Your task to perform on an android device: find which apps use the phone's location Image 0: 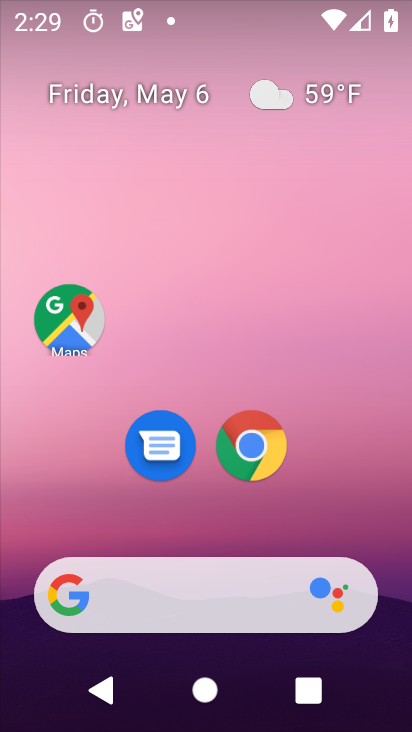
Step 0: drag from (373, 508) to (227, 131)
Your task to perform on an android device: find which apps use the phone's location Image 1: 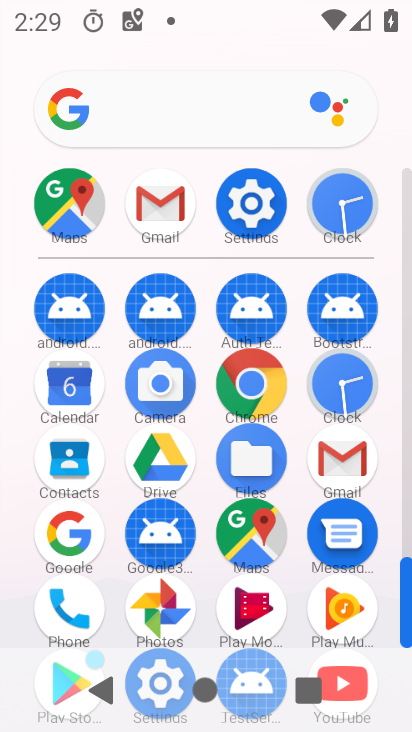
Step 1: click (69, 598)
Your task to perform on an android device: find which apps use the phone's location Image 2: 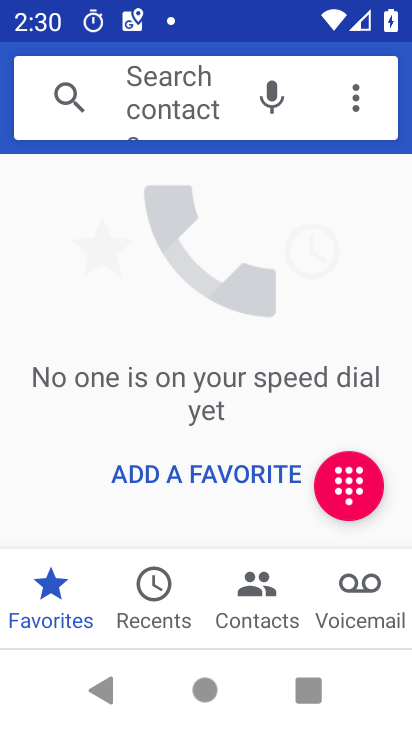
Step 2: press home button
Your task to perform on an android device: find which apps use the phone's location Image 3: 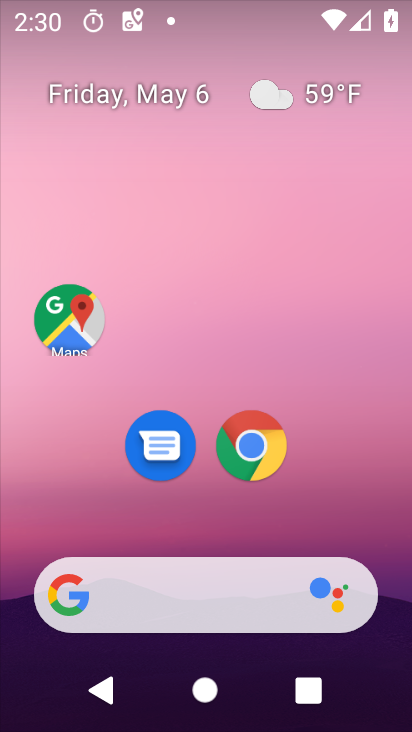
Step 3: drag from (367, 556) to (167, 87)
Your task to perform on an android device: find which apps use the phone's location Image 4: 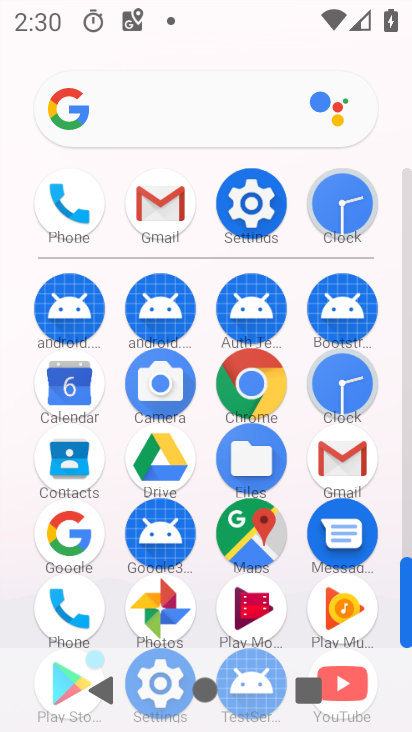
Step 4: drag from (288, 529) to (209, 182)
Your task to perform on an android device: find which apps use the phone's location Image 5: 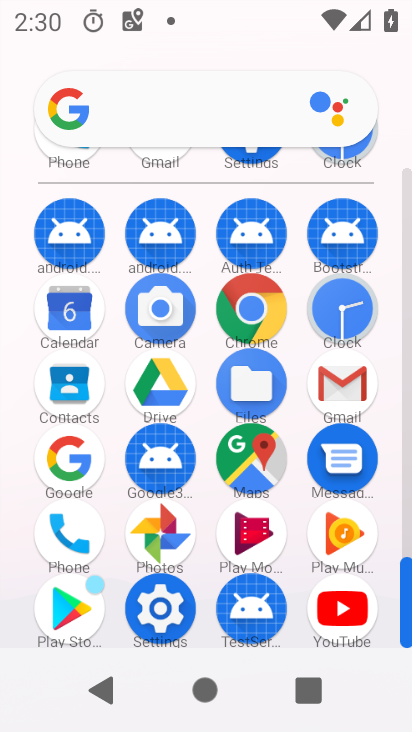
Step 5: drag from (238, 296) to (321, 700)
Your task to perform on an android device: find which apps use the phone's location Image 6: 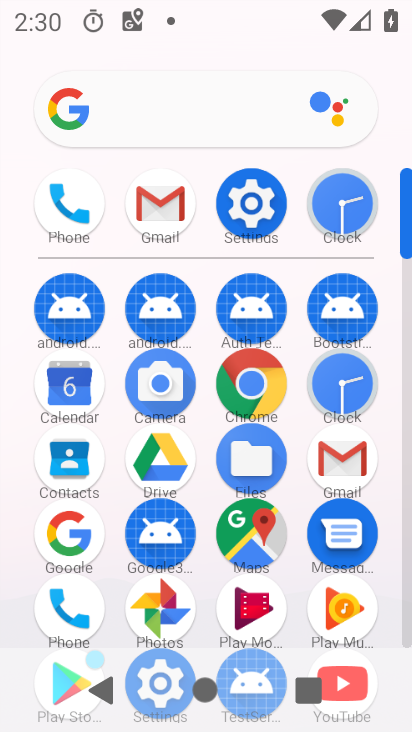
Step 6: click (252, 206)
Your task to perform on an android device: find which apps use the phone's location Image 7: 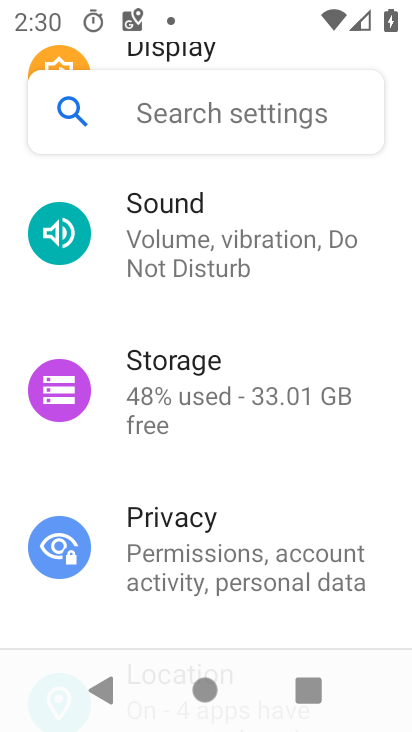
Step 7: drag from (222, 553) to (167, 209)
Your task to perform on an android device: find which apps use the phone's location Image 8: 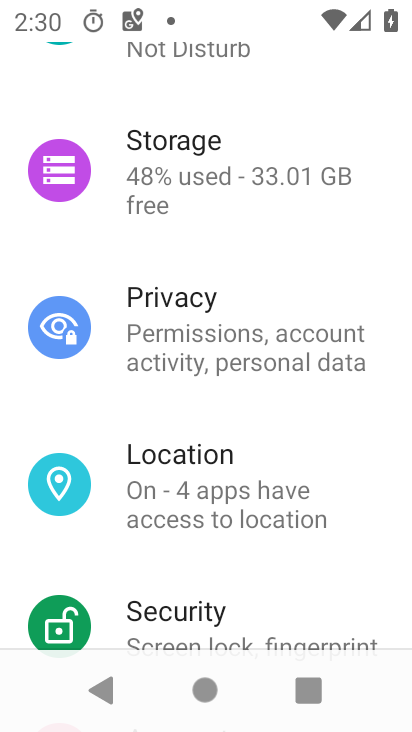
Step 8: drag from (252, 486) to (252, 13)
Your task to perform on an android device: find which apps use the phone's location Image 9: 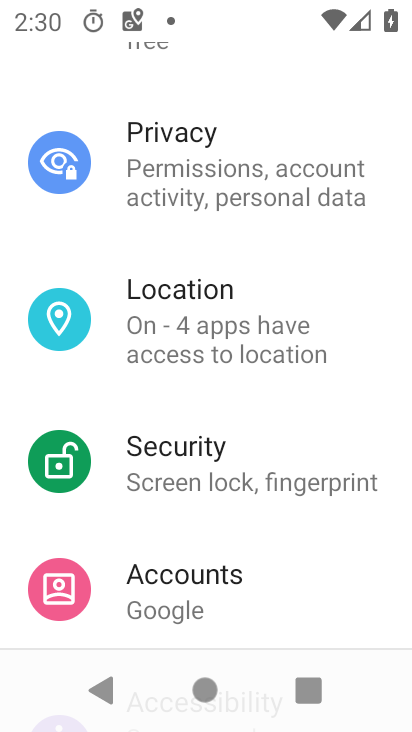
Step 9: drag from (223, 502) to (244, 8)
Your task to perform on an android device: find which apps use the phone's location Image 10: 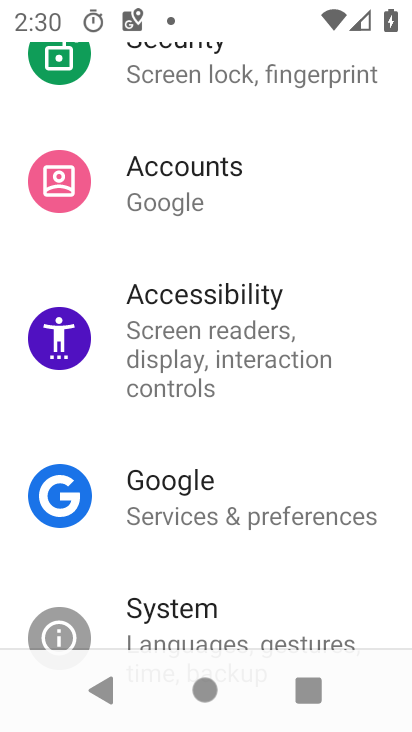
Step 10: drag from (215, 297) to (266, 447)
Your task to perform on an android device: find which apps use the phone's location Image 11: 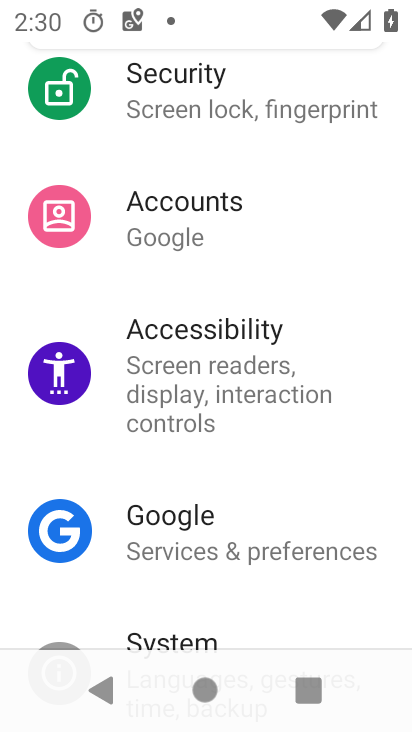
Step 11: drag from (212, 163) to (272, 438)
Your task to perform on an android device: find which apps use the phone's location Image 12: 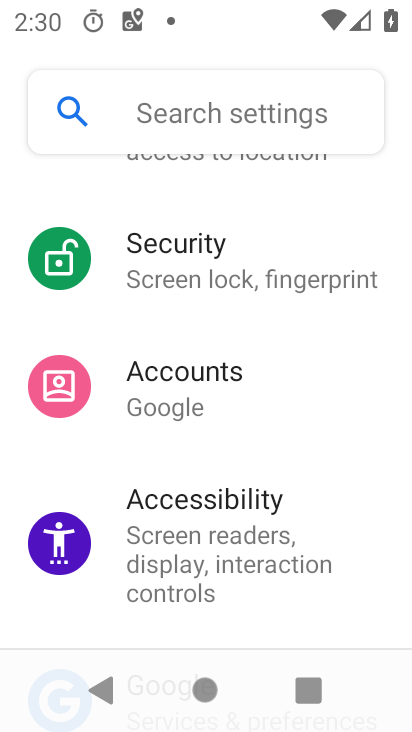
Step 12: drag from (242, 335) to (252, 662)
Your task to perform on an android device: find which apps use the phone's location Image 13: 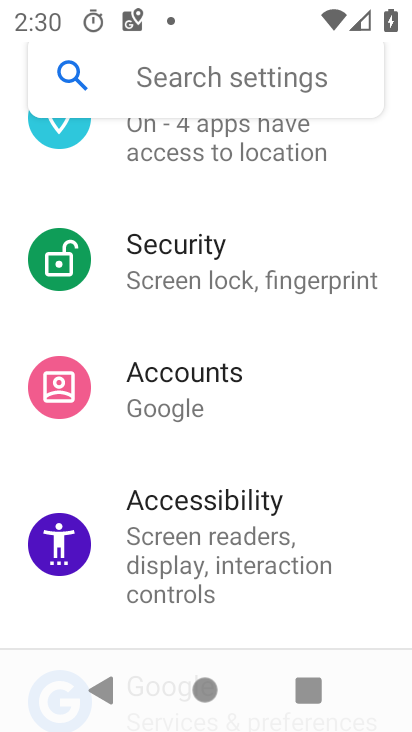
Step 13: drag from (195, 469) to (228, 547)
Your task to perform on an android device: find which apps use the phone's location Image 14: 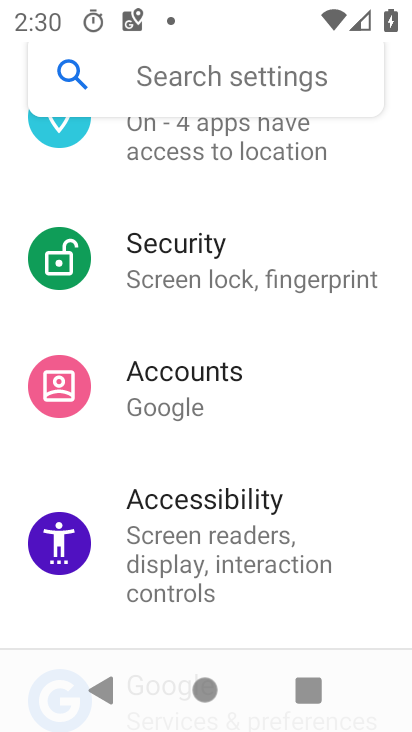
Step 14: press home button
Your task to perform on an android device: find which apps use the phone's location Image 15: 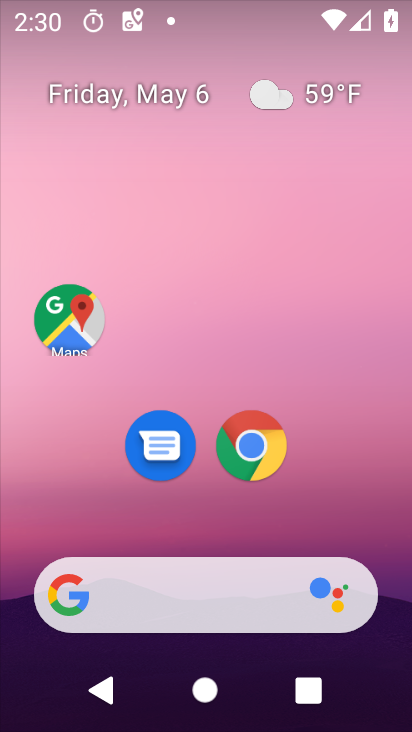
Step 15: drag from (292, 485) to (126, 29)
Your task to perform on an android device: find which apps use the phone's location Image 16: 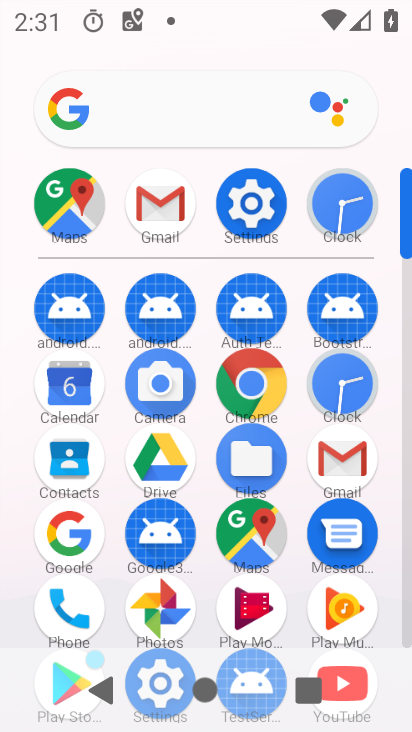
Step 16: click (253, 203)
Your task to perform on an android device: find which apps use the phone's location Image 17: 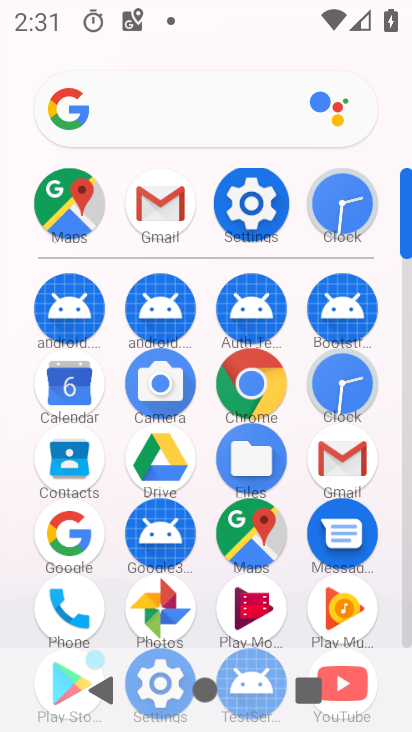
Step 17: click (253, 203)
Your task to perform on an android device: find which apps use the phone's location Image 18: 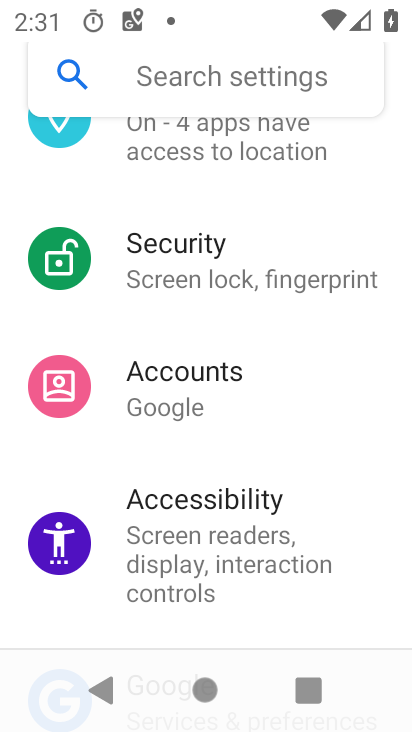
Step 18: drag from (299, 555) to (324, 624)
Your task to perform on an android device: find which apps use the phone's location Image 19: 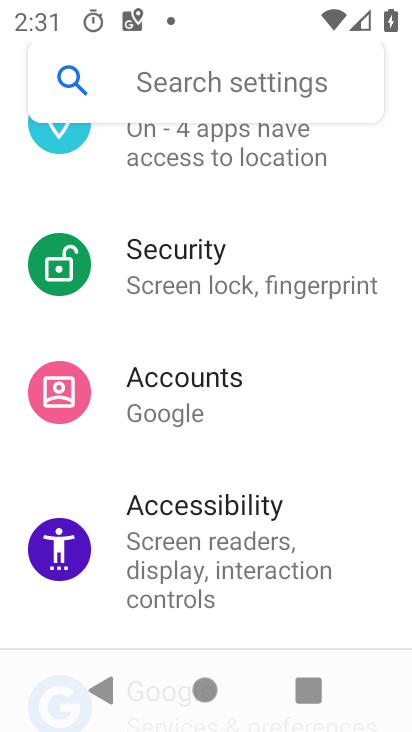
Step 19: click (325, 527)
Your task to perform on an android device: find which apps use the phone's location Image 20: 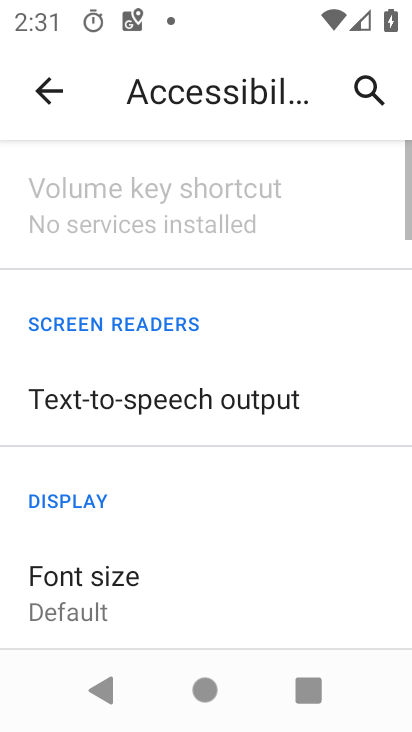
Step 20: drag from (265, 253) to (273, 640)
Your task to perform on an android device: find which apps use the phone's location Image 21: 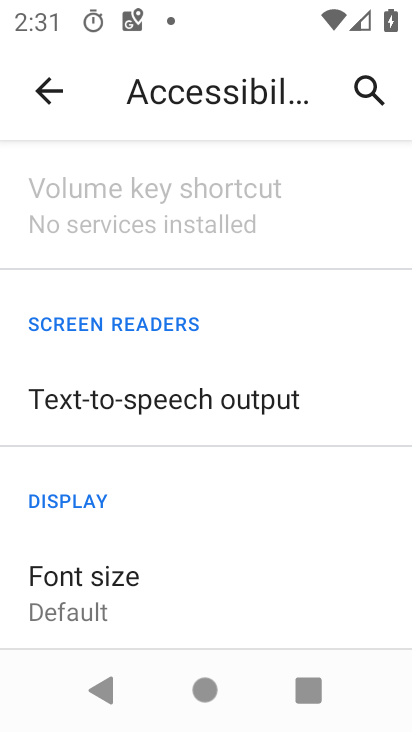
Step 21: click (42, 82)
Your task to perform on an android device: find which apps use the phone's location Image 22: 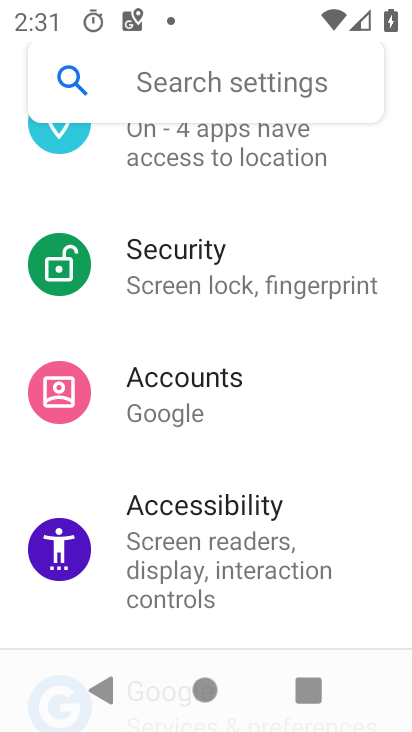
Step 22: drag from (204, 500) to (219, 596)
Your task to perform on an android device: find which apps use the phone's location Image 23: 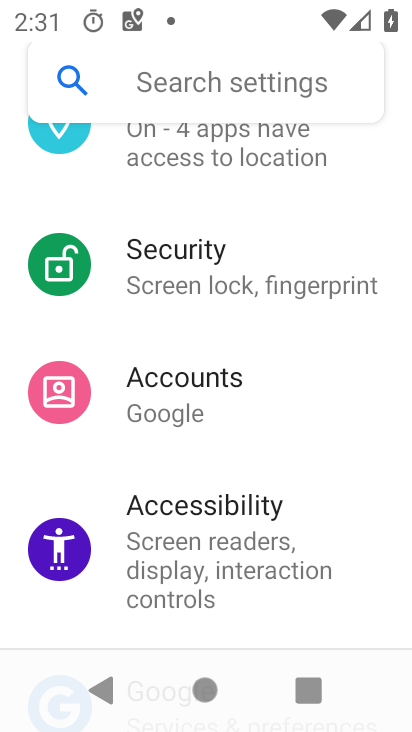
Step 23: drag from (214, 564) to (294, 558)
Your task to perform on an android device: find which apps use the phone's location Image 24: 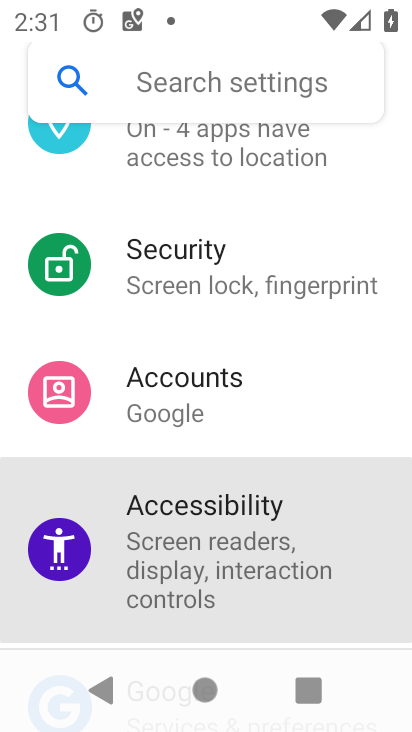
Step 24: drag from (194, 581) to (192, 641)
Your task to perform on an android device: find which apps use the phone's location Image 25: 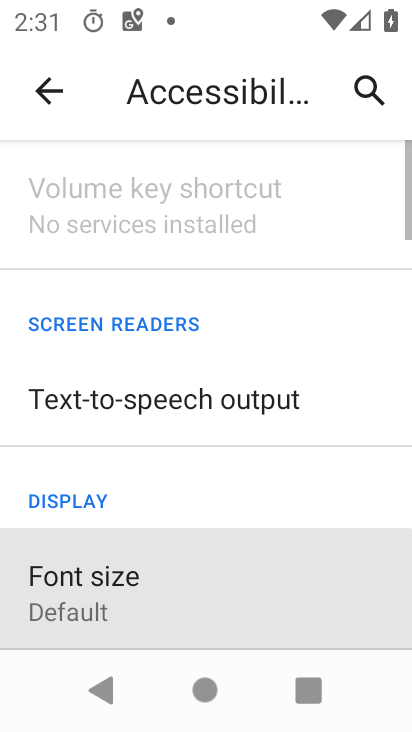
Step 25: drag from (147, 307) to (197, 633)
Your task to perform on an android device: find which apps use the phone's location Image 26: 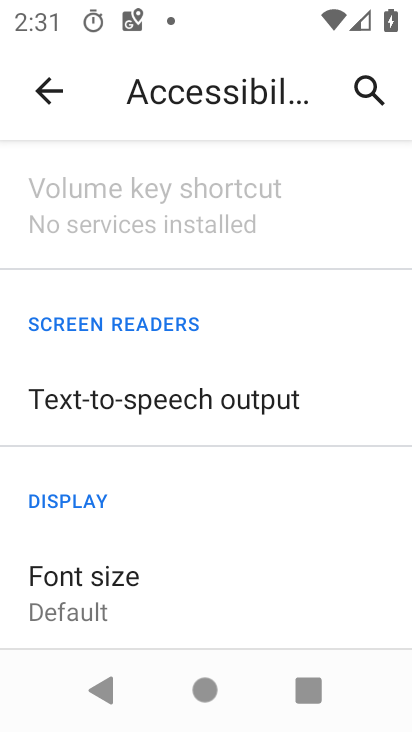
Step 26: click (44, 91)
Your task to perform on an android device: find which apps use the phone's location Image 27: 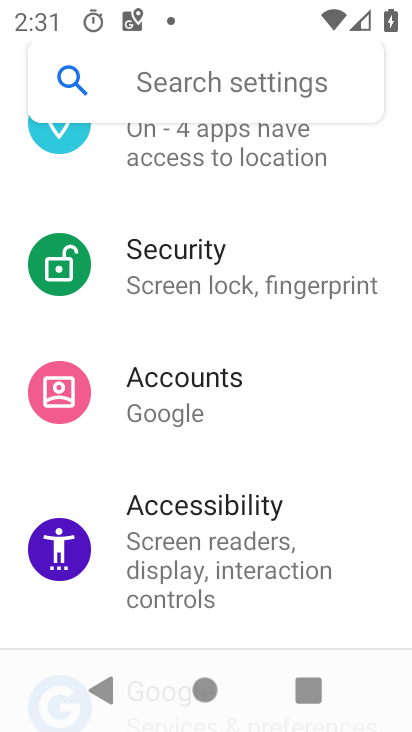
Step 27: drag from (245, 275) to (245, 654)
Your task to perform on an android device: find which apps use the phone's location Image 28: 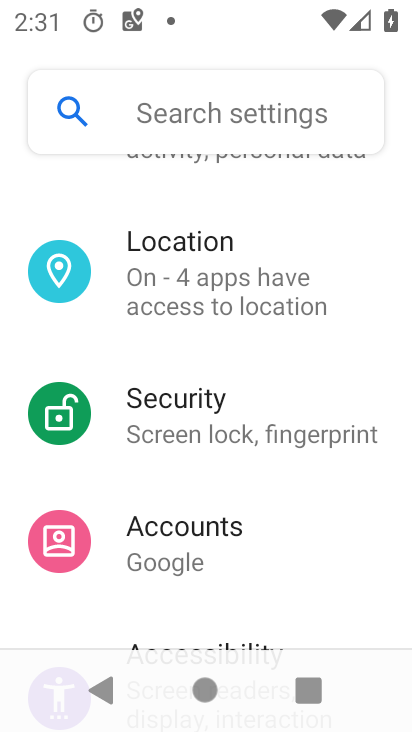
Step 28: drag from (207, 286) to (245, 643)
Your task to perform on an android device: find which apps use the phone's location Image 29: 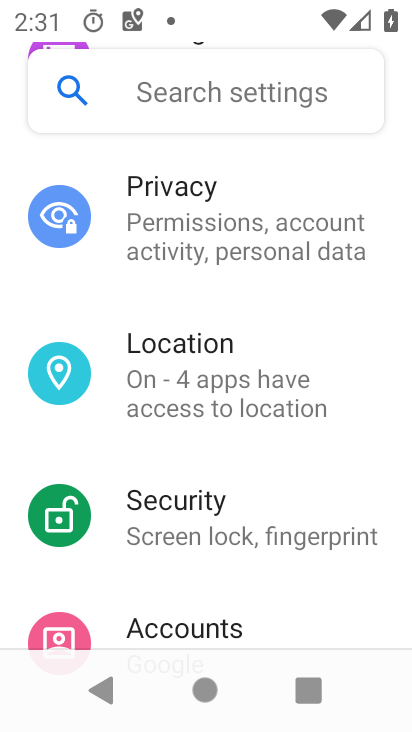
Step 29: drag from (205, 305) to (283, 608)
Your task to perform on an android device: find which apps use the phone's location Image 30: 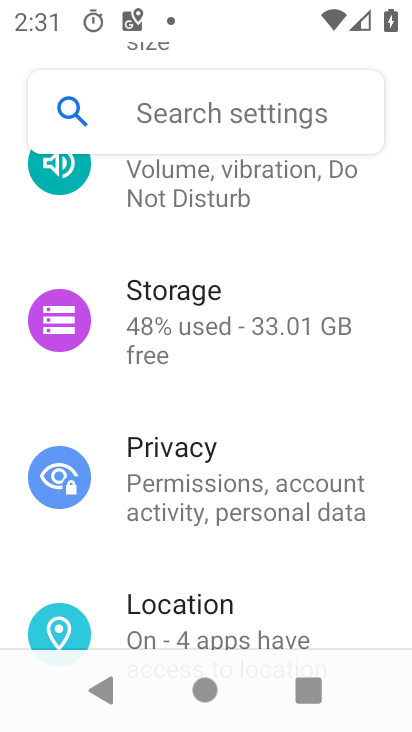
Step 30: click (195, 192)
Your task to perform on an android device: find which apps use the phone's location Image 31: 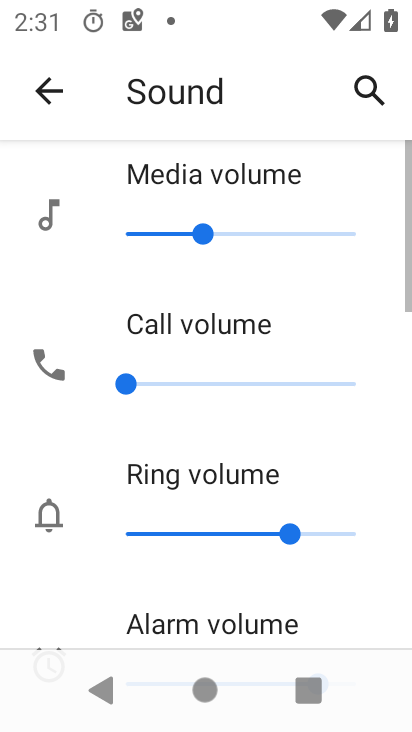
Step 31: drag from (243, 501) to (208, 146)
Your task to perform on an android device: find which apps use the phone's location Image 32: 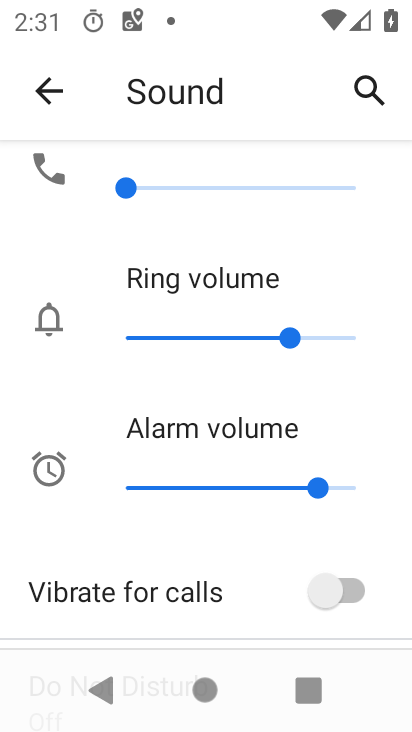
Step 32: click (37, 89)
Your task to perform on an android device: find which apps use the phone's location Image 33: 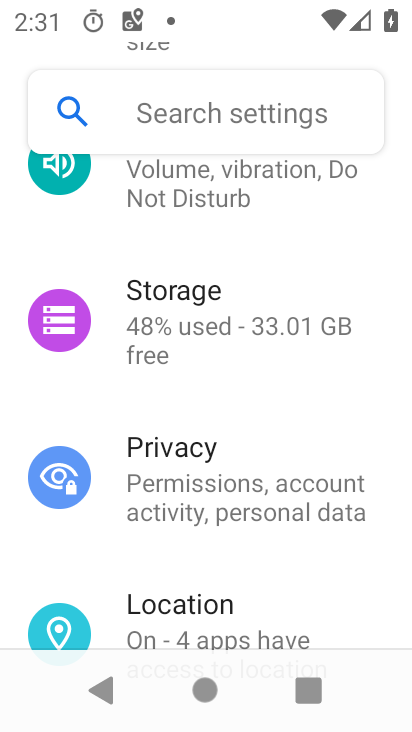
Step 33: drag from (185, 239) to (371, 642)
Your task to perform on an android device: find which apps use the phone's location Image 34: 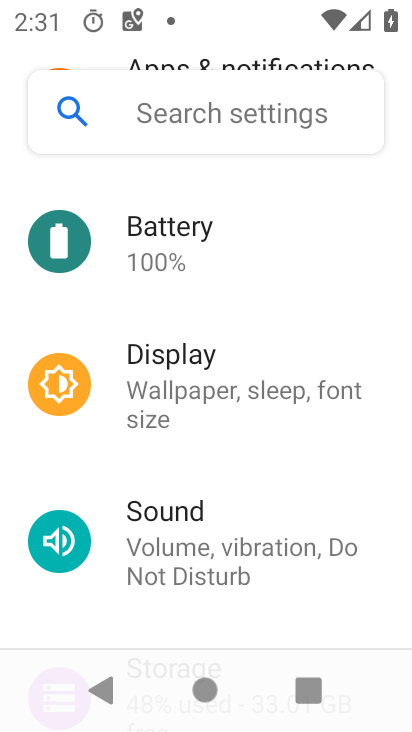
Step 34: drag from (236, 526) to (184, 178)
Your task to perform on an android device: find which apps use the phone's location Image 35: 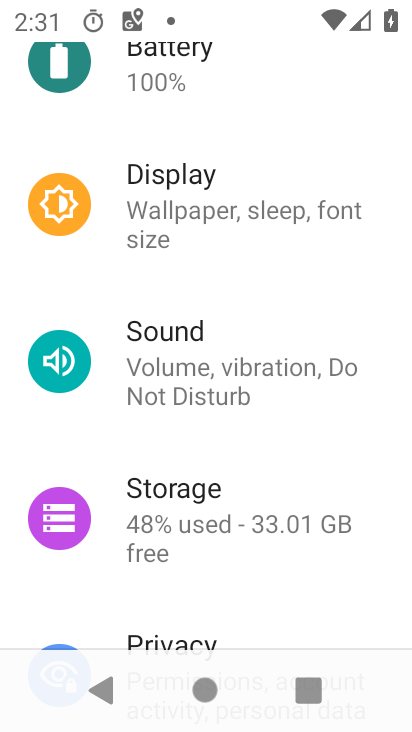
Step 35: drag from (231, 503) to (179, 206)
Your task to perform on an android device: find which apps use the phone's location Image 36: 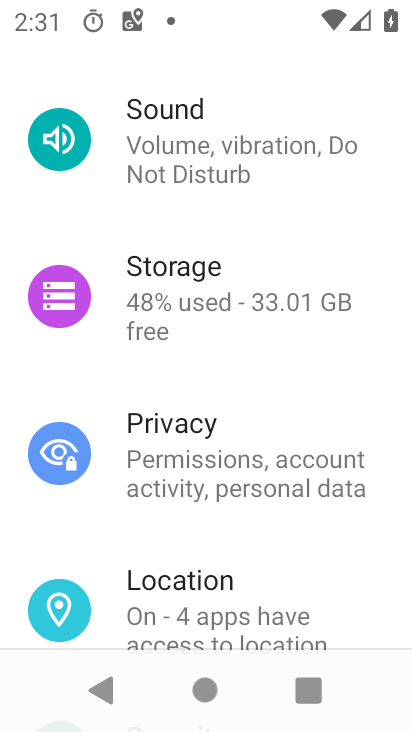
Step 36: drag from (221, 519) to (173, 177)
Your task to perform on an android device: find which apps use the phone's location Image 37: 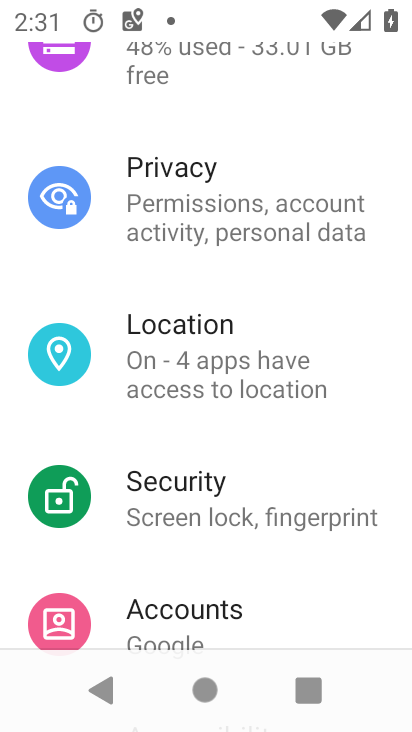
Step 37: drag from (310, 543) to (326, 156)
Your task to perform on an android device: find which apps use the phone's location Image 38: 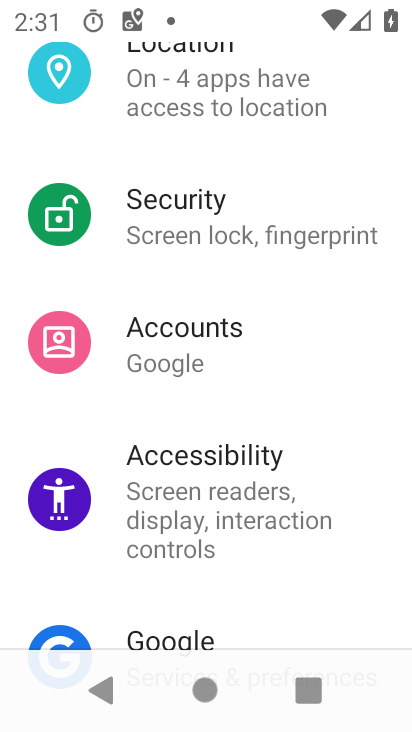
Step 38: click (211, 92)
Your task to perform on an android device: find which apps use the phone's location Image 39: 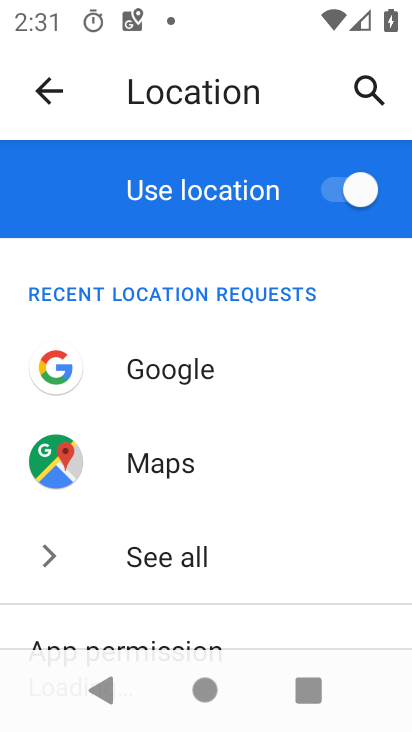
Step 39: click (240, 248)
Your task to perform on an android device: find which apps use the phone's location Image 40: 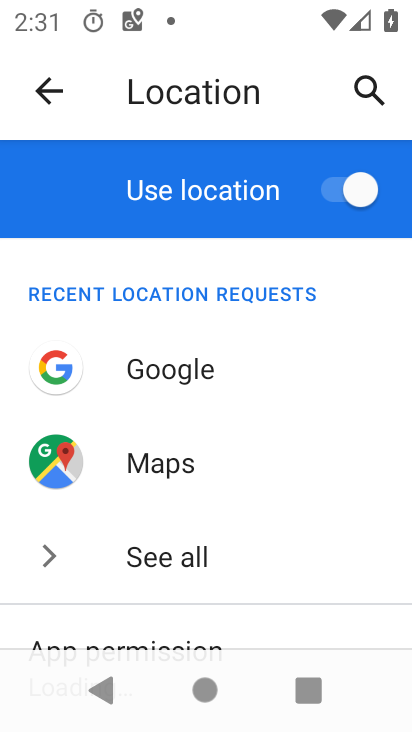
Step 40: drag from (337, 545) to (259, 215)
Your task to perform on an android device: find which apps use the phone's location Image 41: 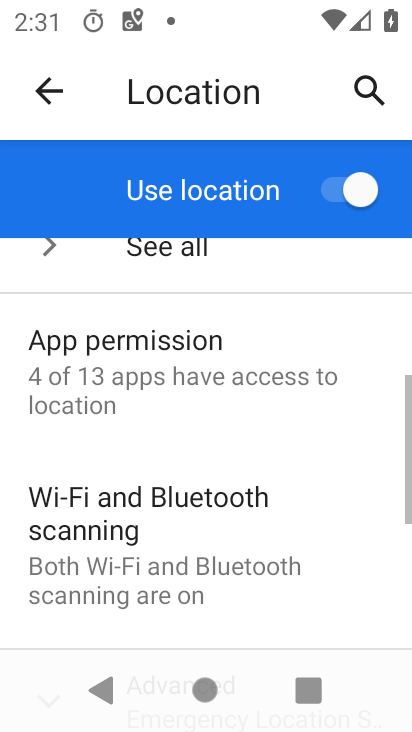
Step 41: drag from (257, 521) to (174, 185)
Your task to perform on an android device: find which apps use the phone's location Image 42: 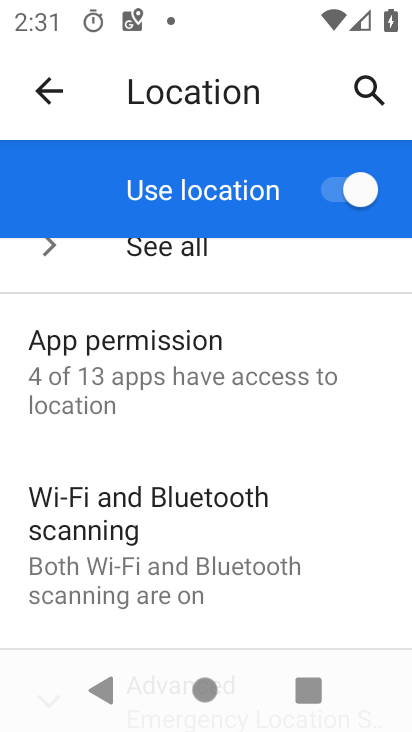
Step 42: drag from (197, 596) to (156, 269)
Your task to perform on an android device: find which apps use the phone's location Image 43: 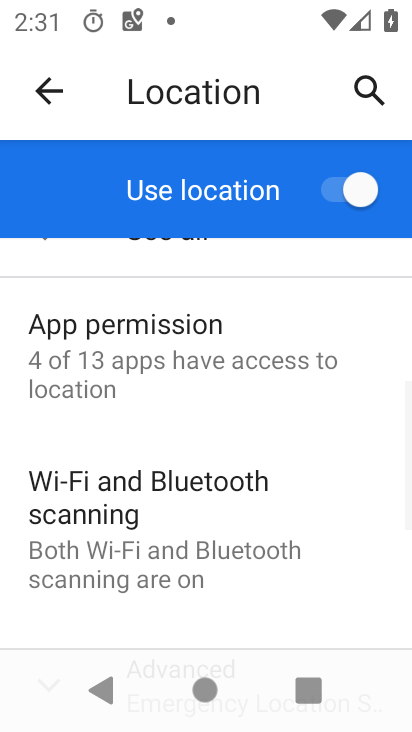
Step 43: click (134, 354)
Your task to perform on an android device: find which apps use the phone's location Image 44: 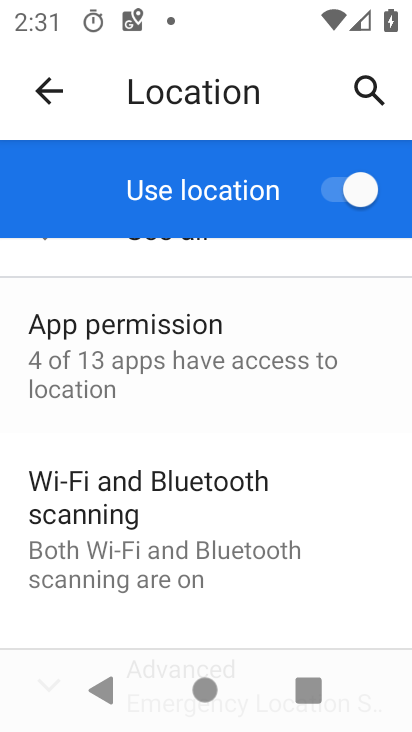
Step 44: click (134, 354)
Your task to perform on an android device: find which apps use the phone's location Image 45: 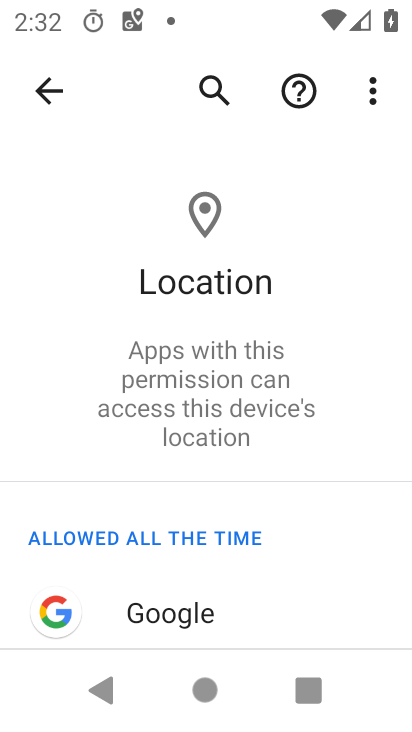
Step 45: task complete